Your task to perform on an android device: Open calendar and show me the third week of next month Image 0: 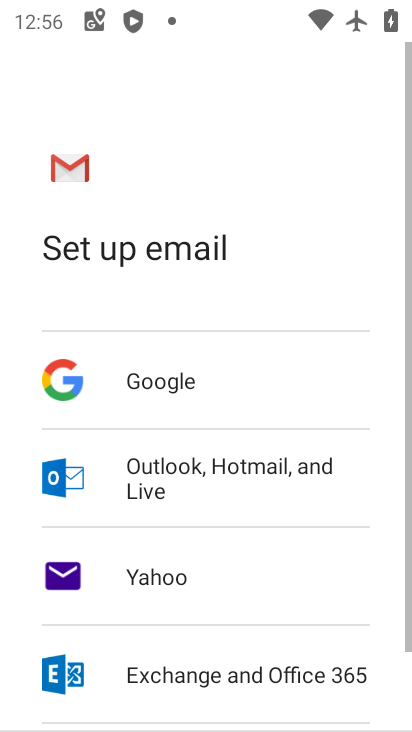
Step 0: press home button
Your task to perform on an android device: Open calendar and show me the third week of next month Image 1: 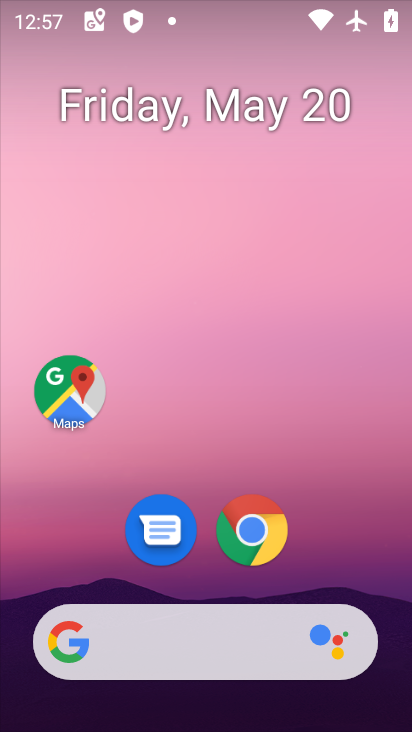
Step 1: drag from (205, 695) to (100, 17)
Your task to perform on an android device: Open calendar and show me the third week of next month Image 2: 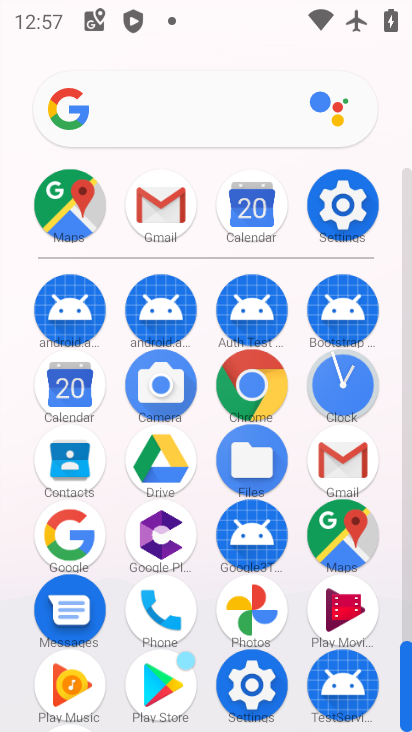
Step 2: click (86, 403)
Your task to perform on an android device: Open calendar and show me the third week of next month Image 3: 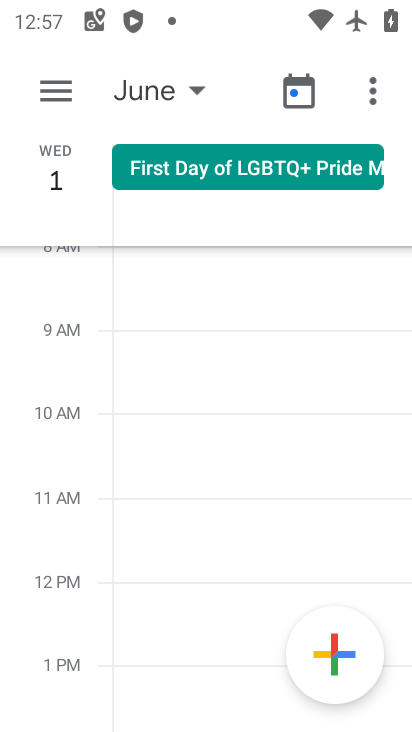
Step 3: drag from (146, 95) to (185, 404)
Your task to perform on an android device: Open calendar and show me the third week of next month Image 4: 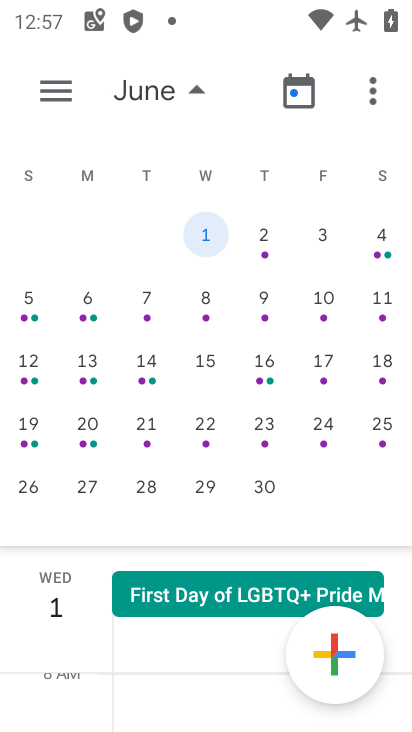
Step 4: click (26, 372)
Your task to perform on an android device: Open calendar and show me the third week of next month Image 5: 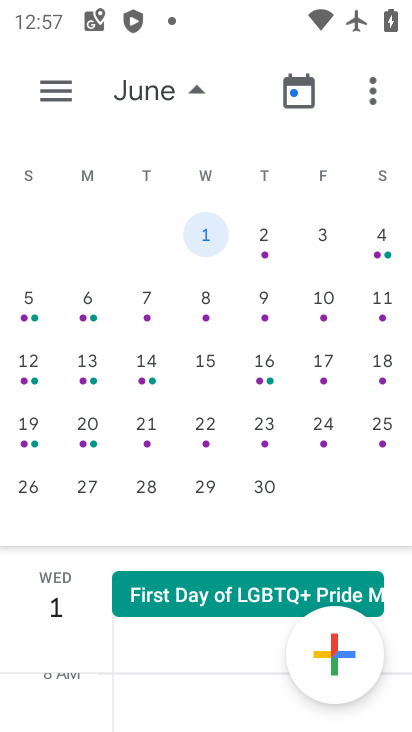
Step 5: click (26, 360)
Your task to perform on an android device: Open calendar and show me the third week of next month Image 6: 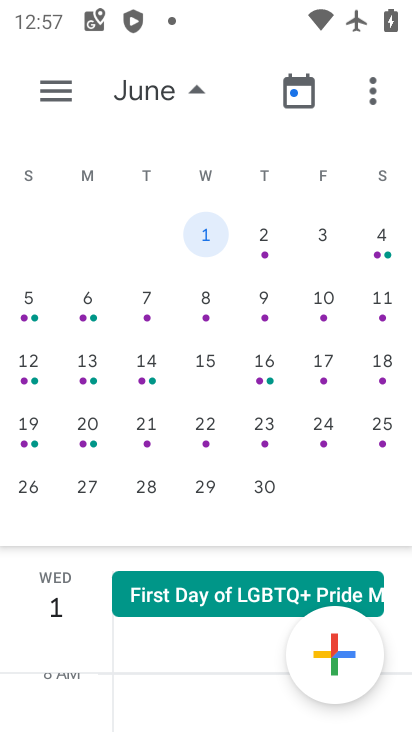
Step 6: click (38, 368)
Your task to perform on an android device: Open calendar and show me the third week of next month Image 7: 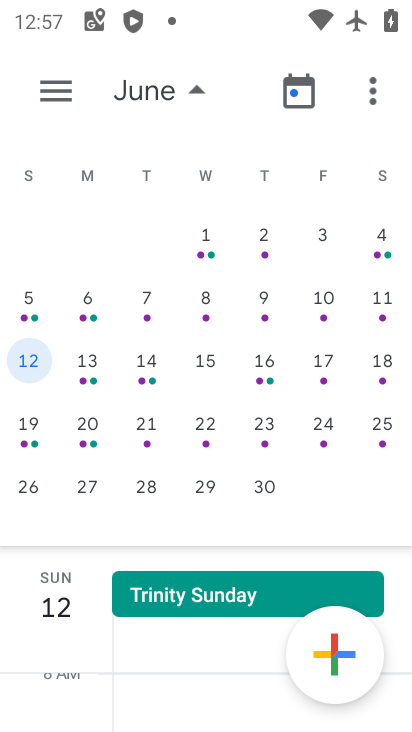
Step 7: task complete